Your task to perform on an android device: Toggle the flashlight Image 0: 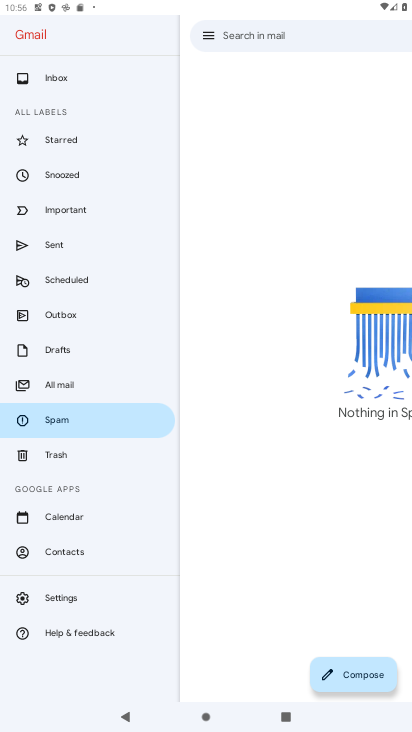
Step 0: press home button
Your task to perform on an android device: Toggle the flashlight Image 1: 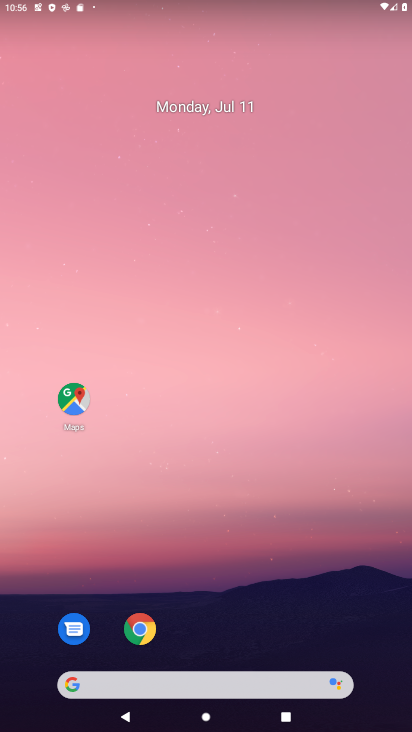
Step 1: drag from (269, 617) to (239, 90)
Your task to perform on an android device: Toggle the flashlight Image 2: 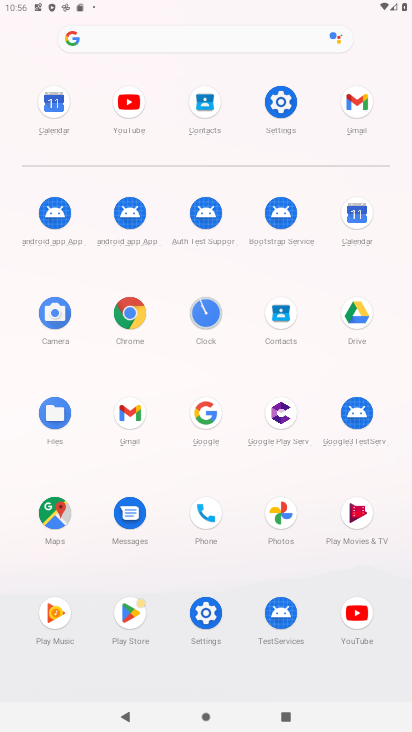
Step 2: click (268, 102)
Your task to perform on an android device: Toggle the flashlight Image 3: 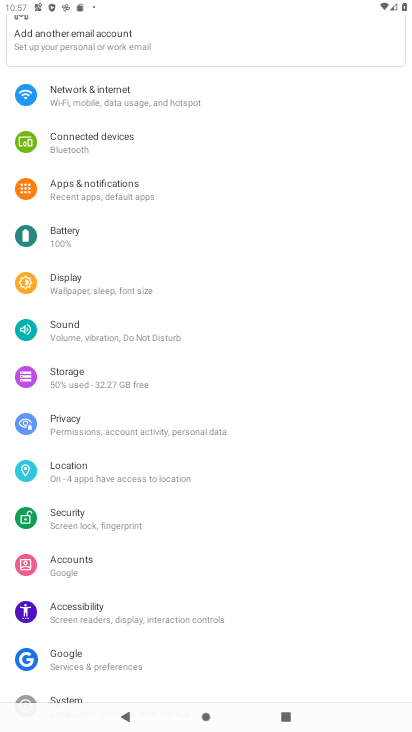
Step 3: click (175, 230)
Your task to perform on an android device: Toggle the flashlight Image 4: 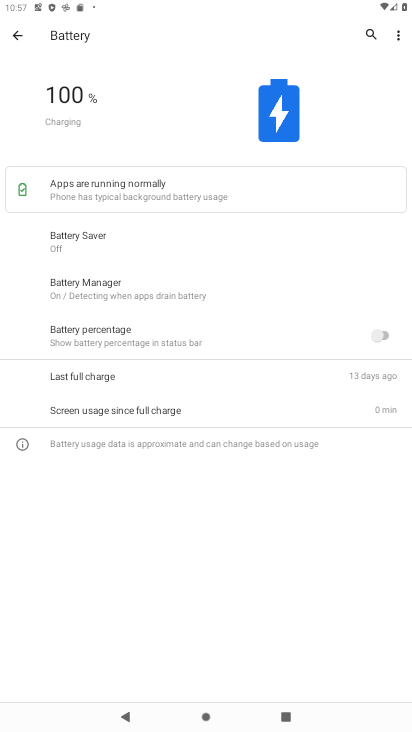
Step 4: task complete